Your task to perform on an android device: open a bookmark in the chrome app Image 0: 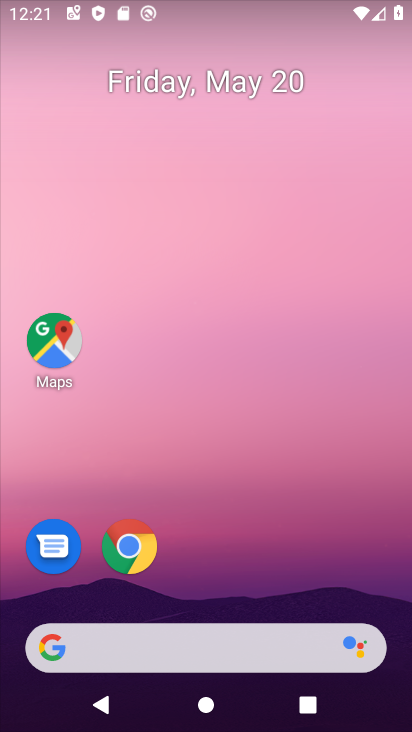
Step 0: click (135, 540)
Your task to perform on an android device: open a bookmark in the chrome app Image 1: 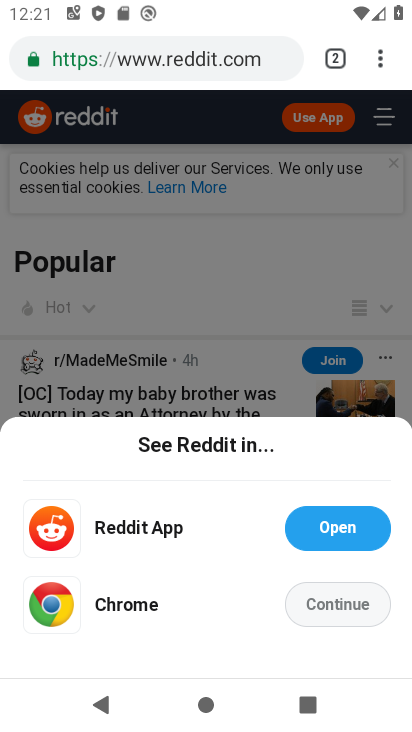
Step 1: click (381, 60)
Your task to perform on an android device: open a bookmark in the chrome app Image 2: 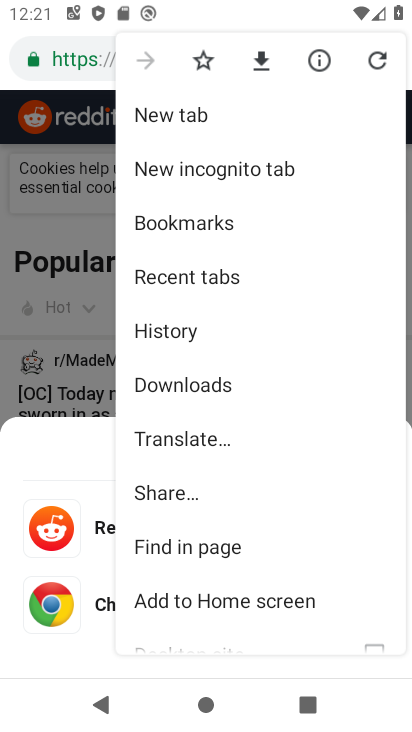
Step 2: click (228, 215)
Your task to perform on an android device: open a bookmark in the chrome app Image 3: 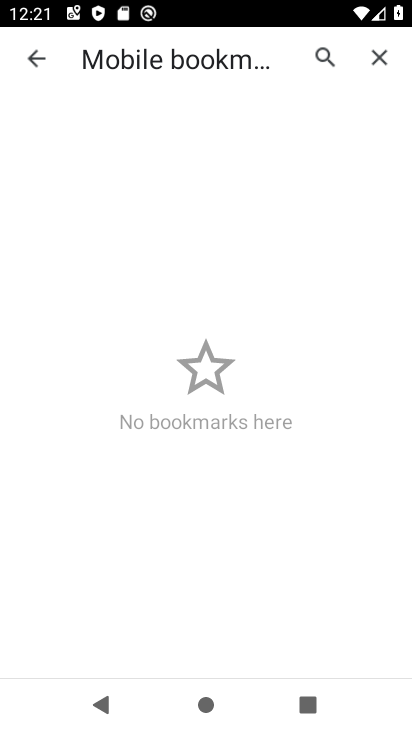
Step 3: task complete